Your task to perform on an android device: toggle notification dots Image 0: 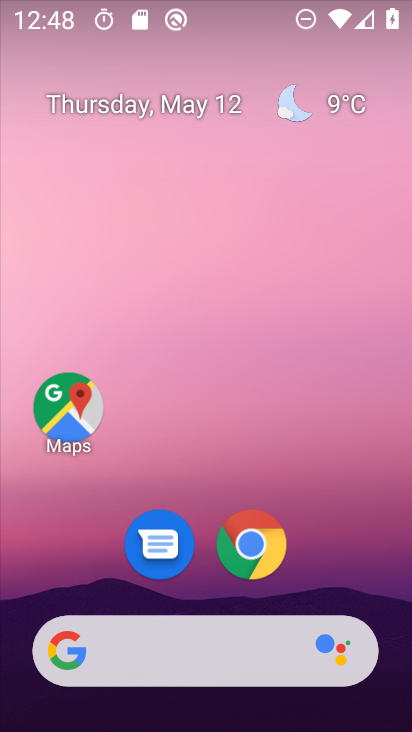
Step 0: drag from (209, 726) to (206, 112)
Your task to perform on an android device: toggle notification dots Image 1: 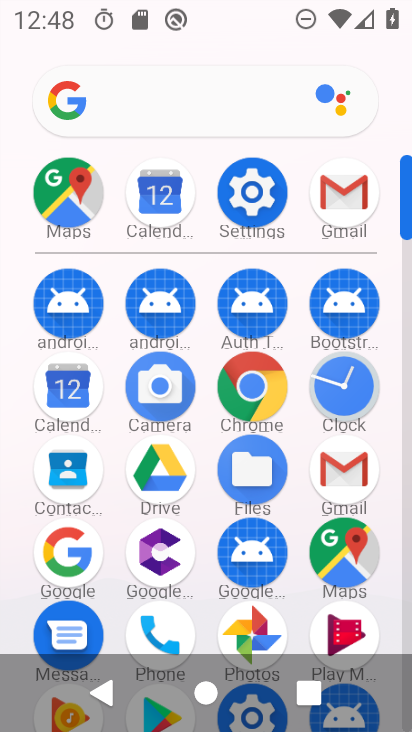
Step 1: click (264, 198)
Your task to perform on an android device: toggle notification dots Image 2: 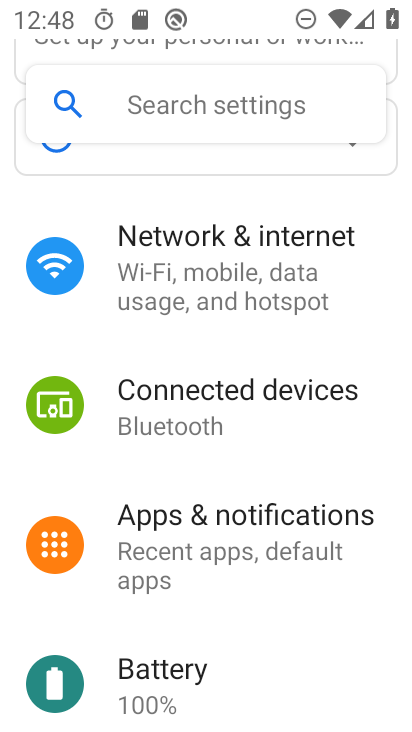
Step 2: click (202, 536)
Your task to perform on an android device: toggle notification dots Image 3: 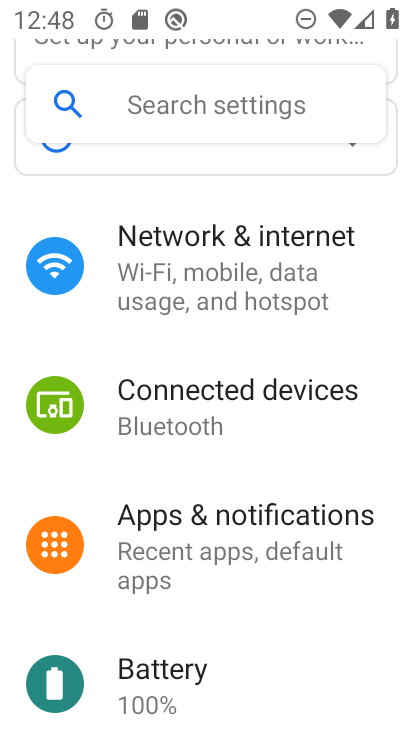
Step 3: click (228, 534)
Your task to perform on an android device: toggle notification dots Image 4: 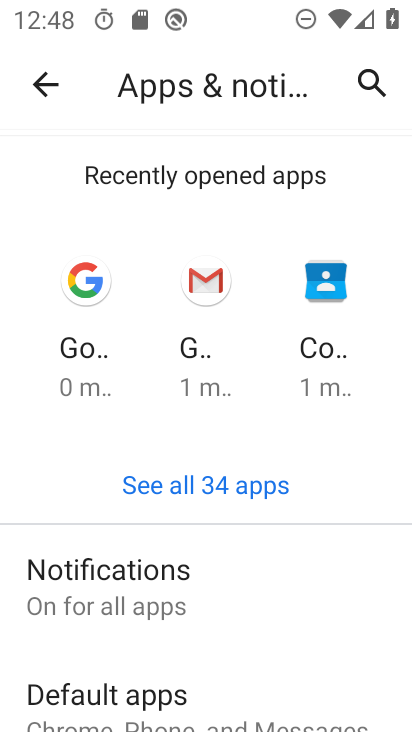
Step 4: drag from (234, 687) to (244, 350)
Your task to perform on an android device: toggle notification dots Image 5: 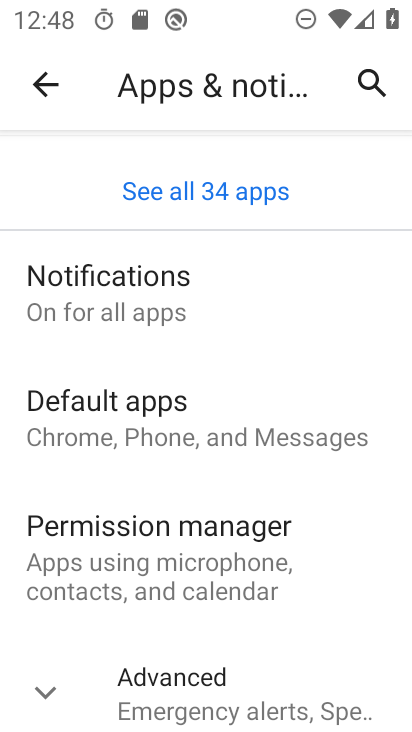
Step 5: click (103, 297)
Your task to perform on an android device: toggle notification dots Image 6: 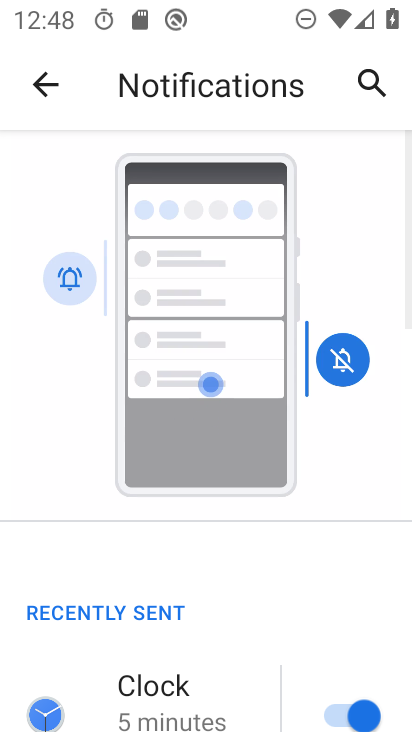
Step 6: drag from (228, 685) to (246, 303)
Your task to perform on an android device: toggle notification dots Image 7: 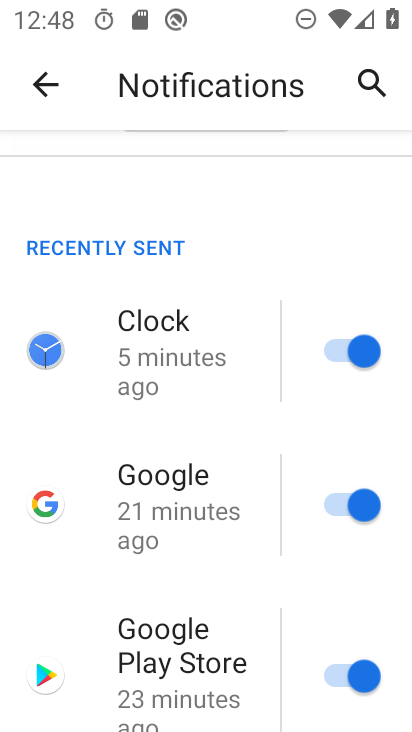
Step 7: drag from (256, 709) to (254, 275)
Your task to perform on an android device: toggle notification dots Image 8: 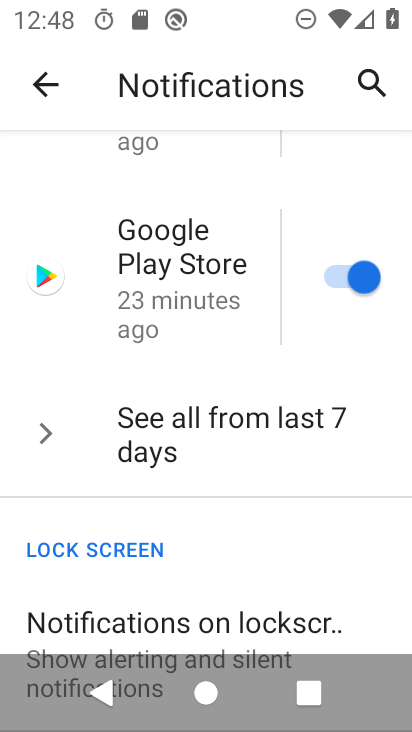
Step 8: drag from (244, 571) to (241, 236)
Your task to perform on an android device: toggle notification dots Image 9: 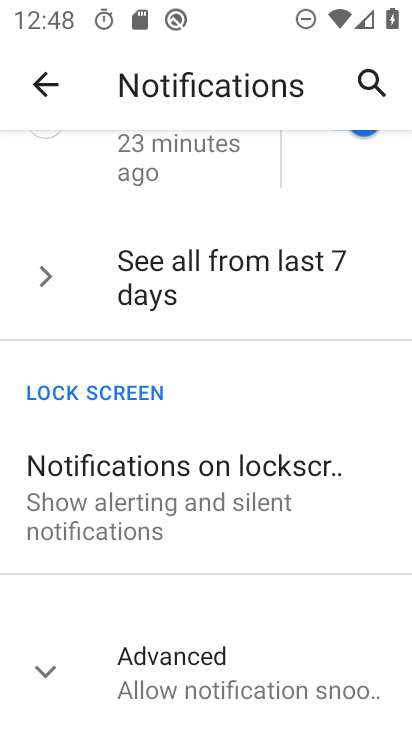
Step 9: click (196, 665)
Your task to perform on an android device: toggle notification dots Image 10: 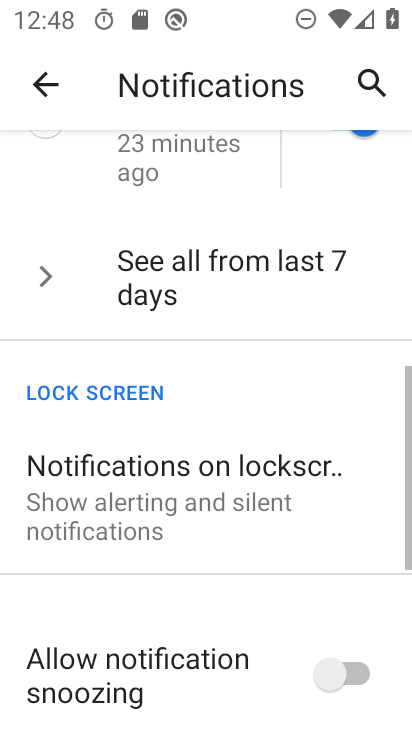
Step 10: drag from (234, 684) to (246, 310)
Your task to perform on an android device: toggle notification dots Image 11: 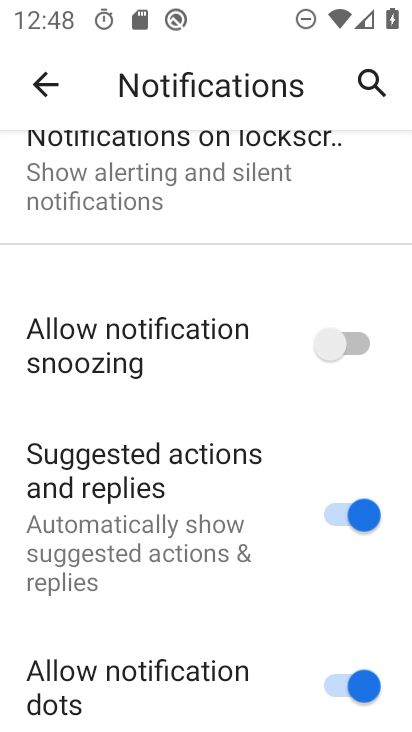
Step 11: click (337, 684)
Your task to perform on an android device: toggle notification dots Image 12: 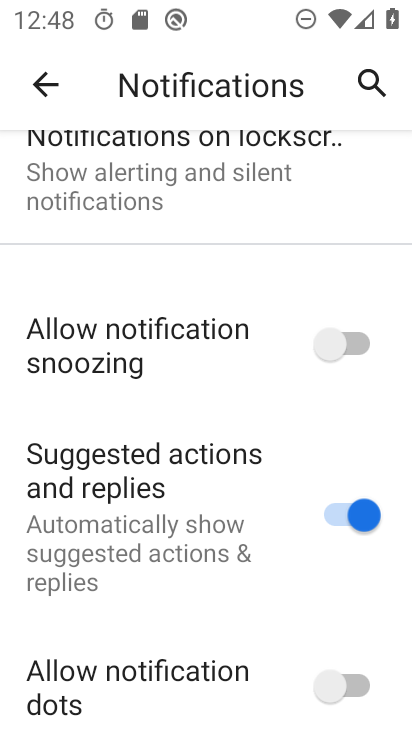
Step 12: task complete